Your task to perform on an android device: Go to Maps Image 0: 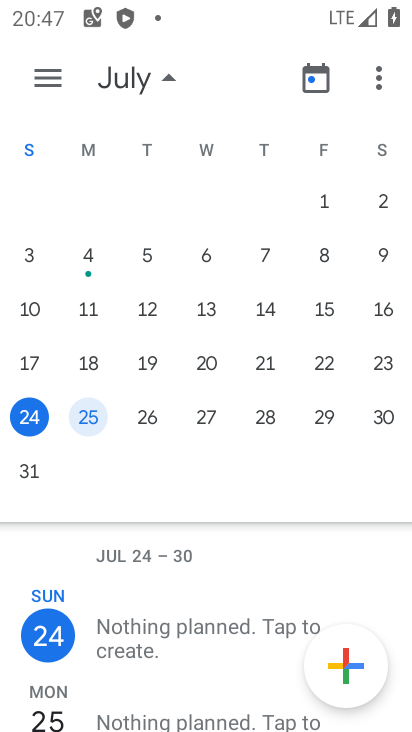
Step 0: press home button
Your task to perform on an android device: Go to Maps Image 1: 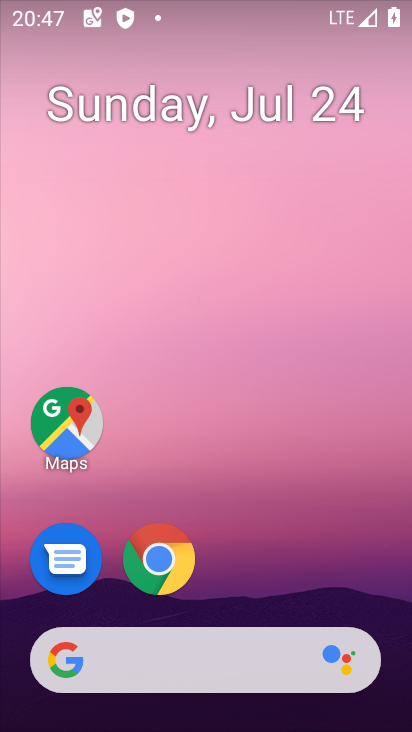
Step 1: drag from (363, 583) to (339, 117)
Your task to perform on an android device: Go to Maps Image 2: 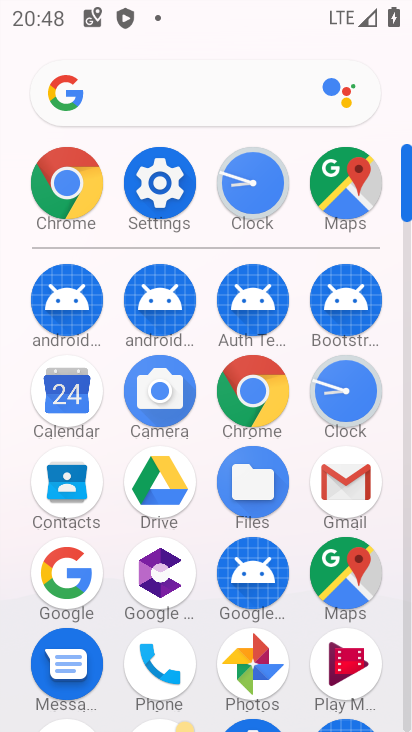
Step 2: click (344, 571)
Your task to perform on an android device: Go to Maps Image 3: 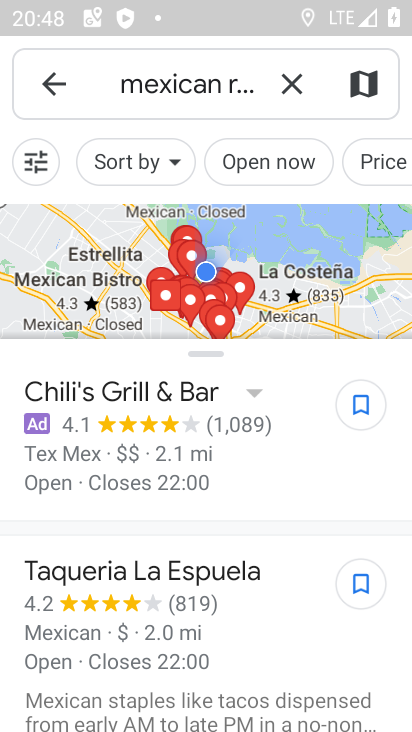
Step 3: task complete